Your task to perform on an android device: Toggle the flashlight Image 0: 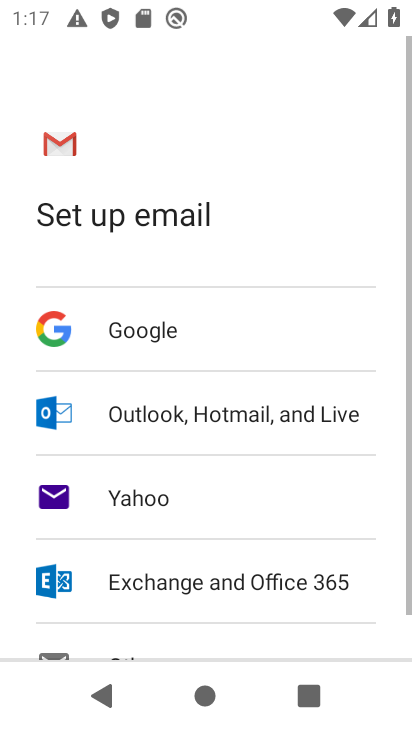
Step 0: press home button
Your task to perform on an android device: Toggle the flashlight Image 1: 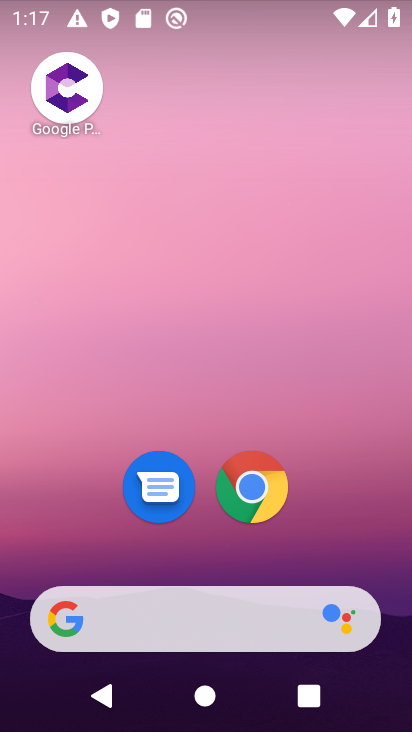
Step 1: task complete